Your task to perform on an android device: Open Youtube and go to the subscriptions tab Image 0: 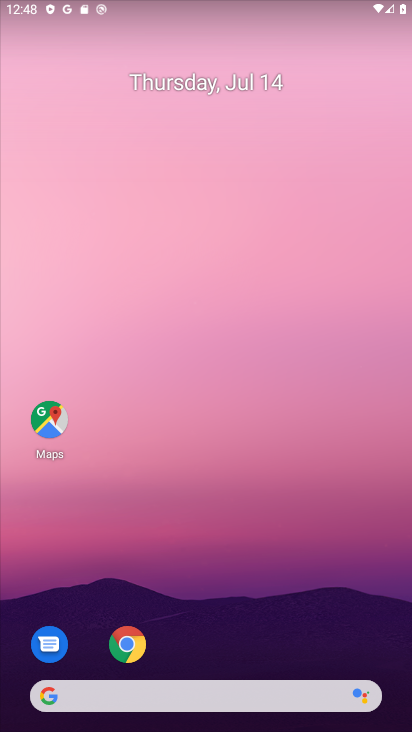
Step 0: drag from (197, 681) to (249, 302)
Your task to perform on an android device: Open Youtube and go to the subscriptions tab Image 1: 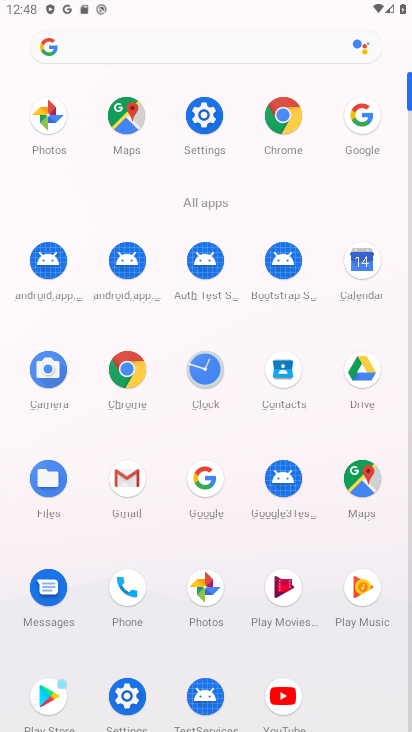
Step 1: click (281, 693)
Your task to perform on an android device: Open Youtube and go to the subscriptions tab Image 2: 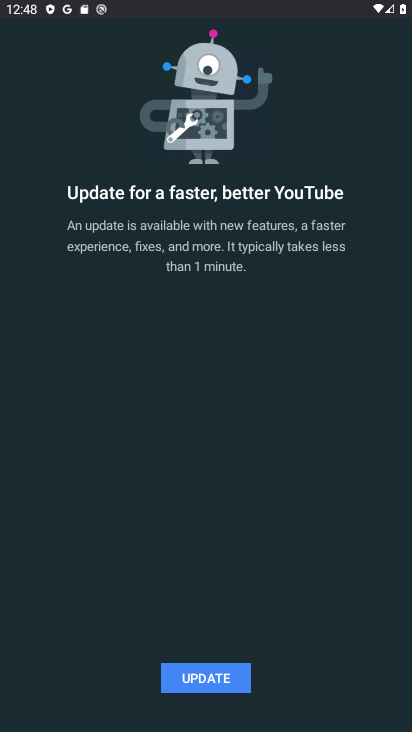
Step 2: click (224, 680)
Your task to perform on an android device: Open Youtube and go to the subscriptions tab Image 3: 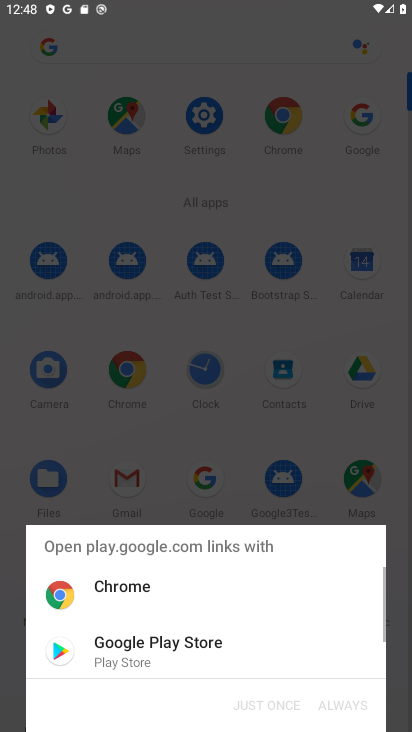
Step 3: click (224, 680)
Your task to perform on an android device: Open Youtube and go to the subscriptions tab Image 4: 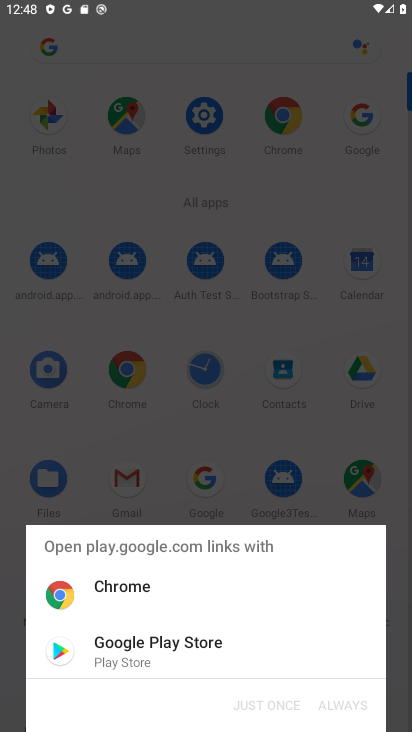
Step 4: click (200, 649)
Your task to perform on an android device: Open Youtube and go to the subscriptions tab Image 5: 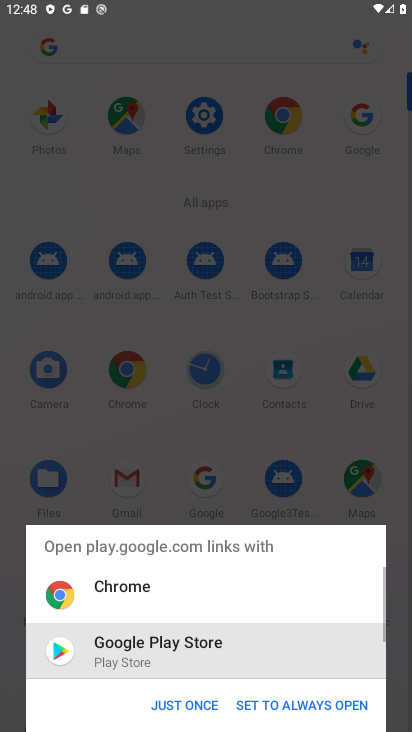
Step 5: click (203, 699)
Your task to perform on an android device: Open Youtube and go to the subscriptions tab Image 6: 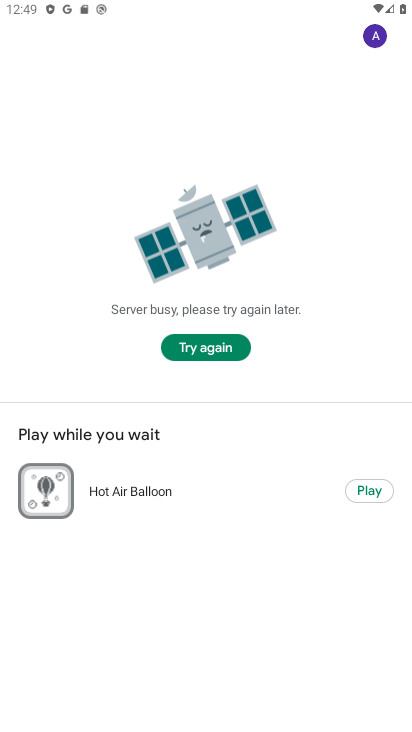
Step 6: task complete